Your task to perform on an android device: turn off priority inbox in the gmail app Image 0: 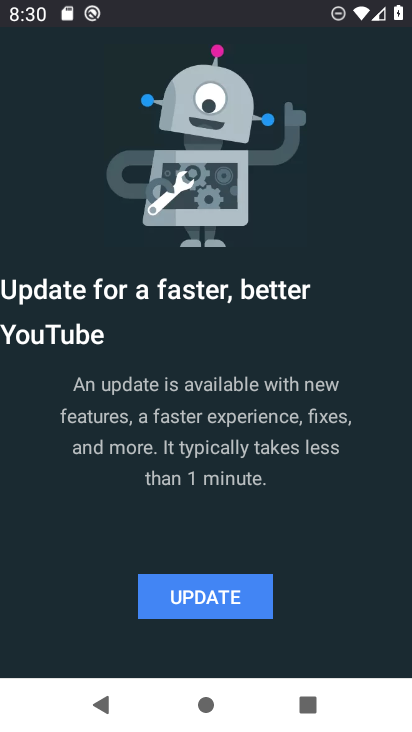
Step 0: press home button
Your task to perform on an android device: turn off priority inbox in the gmail app Image 1: 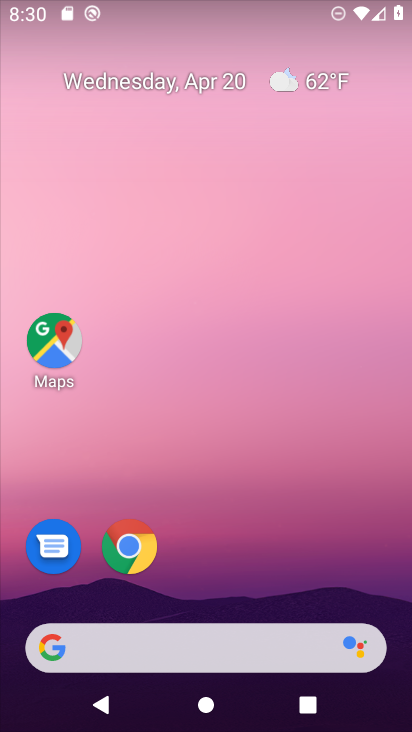
Step 1: drag from (245, 562) to (256, 106)
Your task to perform on an android device: turn off priority inbox in the gmail app Image 2: 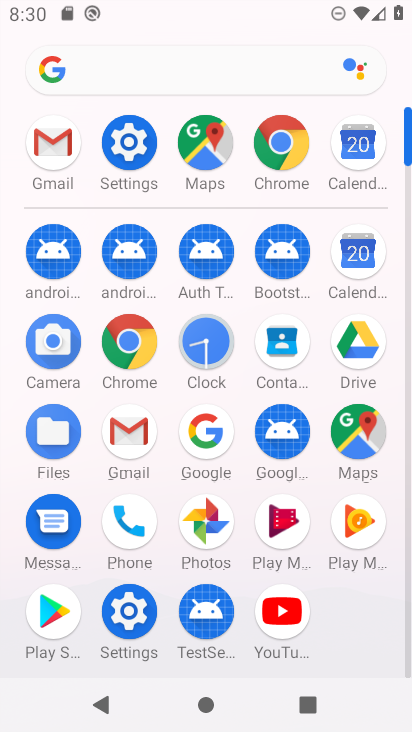
Step 2: click (42, 142)
Your task to perform on an android device: turn off priority inbox in the gmail app Image 3: 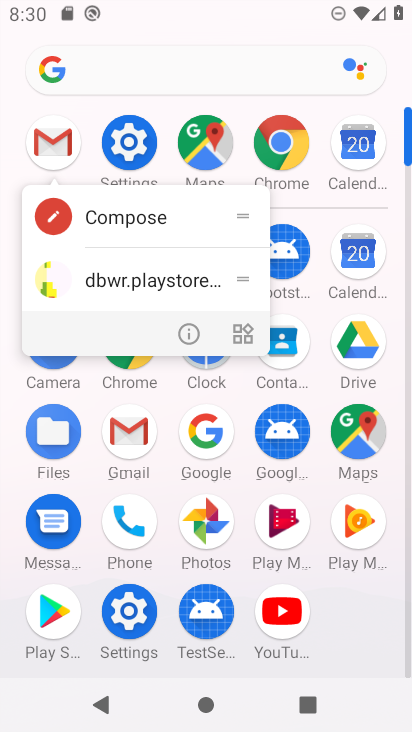
Step 3: click (42, 142)
Your task to perform on an android device: turn off priority inbox in the gmail app Image 4: 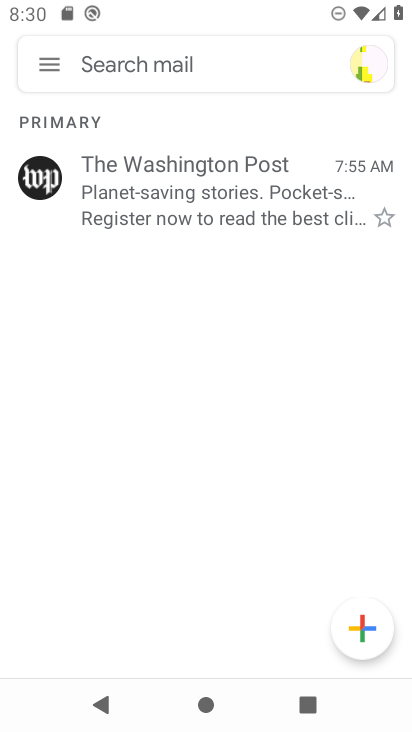
Step 4: click (53, 68)
Your task to perform on an android device: turn off priority inbox in the gmail app Image 5: 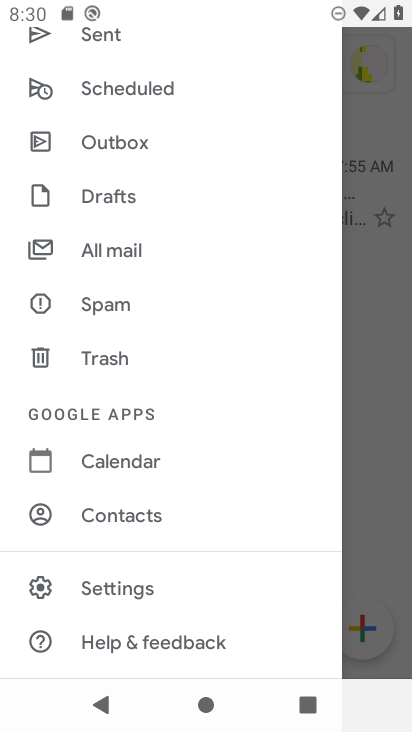
Step 5: click (117, 581)
Your task to perform on an android device: turn off priority inbox in the gmail app Image 6: 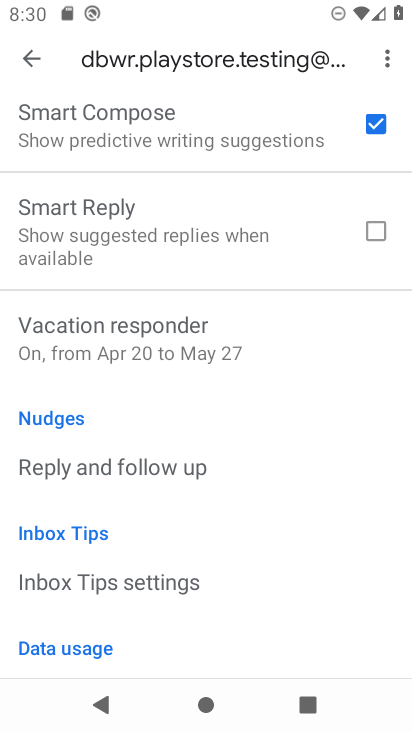
Step 6: drag from (259, 525) to (274, 81)
Your task to perform on an android device: turn off priority inbox in the gmail app Image 7: 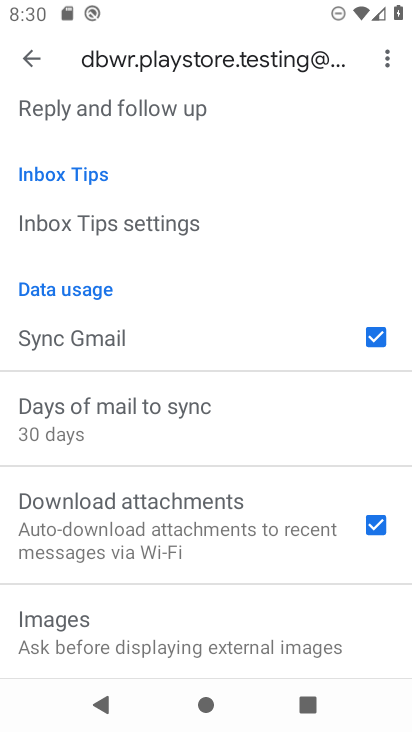
Step 7: drag from (180, 610) to (180, 279)
Your task to perform on an android device: turn off priority inbox in the gmail app Image 8: 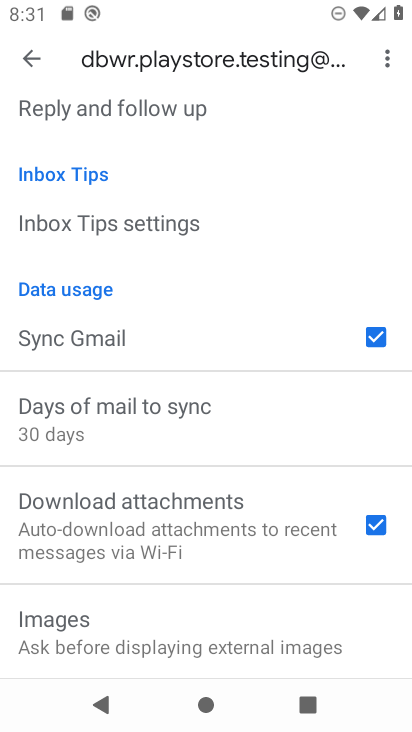
Step 8: drag from (184, 182) to (194, 655)
Your task to perform on an android device: turn off priority inbox in the gmail app Image 9: 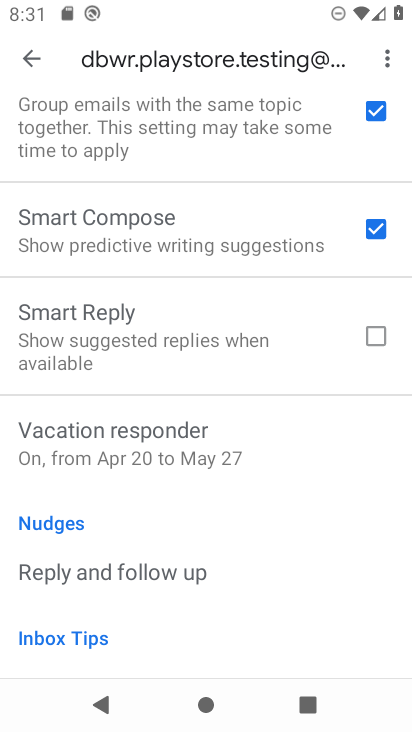
Step 9: drag from (193, 297) to (201, 689)
Your task to perform on an android device: turn off priority inbox in the gmail app Image 10: 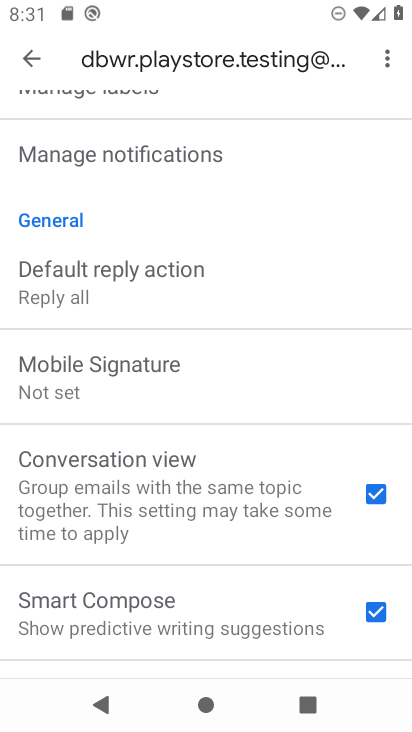
Step 10: drag from (246, 224) to (274, 596)
Your task to perform on an android device: turn off priority inbox in the gmail app Image 11: 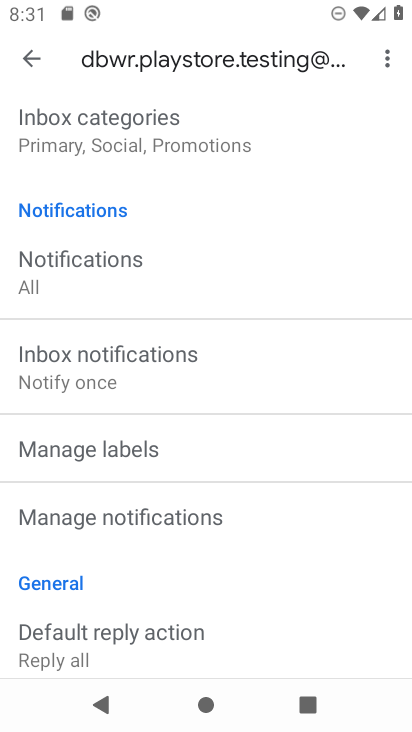
Step 11: drag from (213, 219) to (232, 633)
Your task to perform on an android device: turn off priority inbox in the gmail app Image 12: 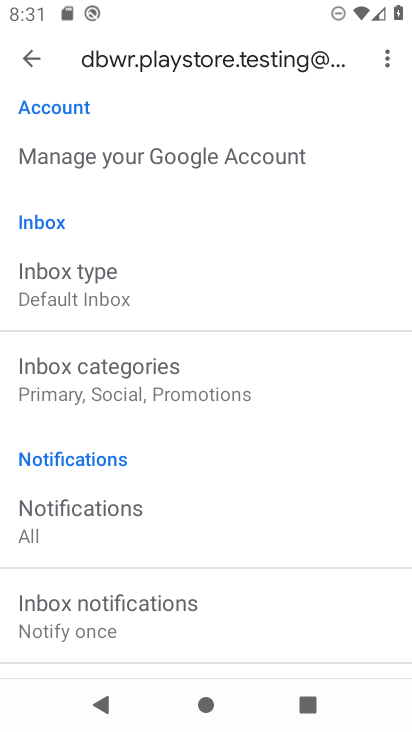
Step 12: click (167, 291)
Your task to perform on an android device: turn off priority inbox in the gmail app Image 13: 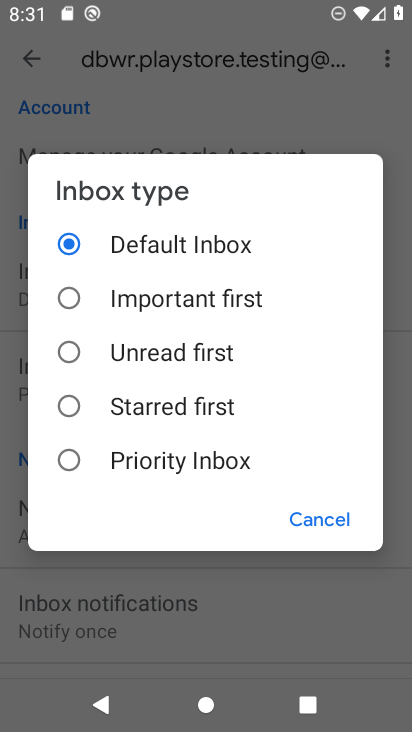
Step 13: click (319, 511)
Your task to perform on an android device: turn off priority inbox in the gmail app Image 14: 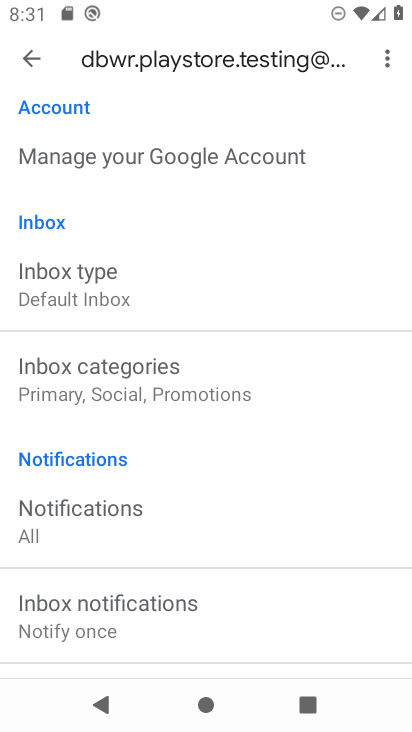
Step 14: task complete